Your task to perform on an android device: Clear the cart on bestbuy.com. Search for "logitech g pro" on bestbuy.com, select the first entry, and add it to the cart. Image 0: 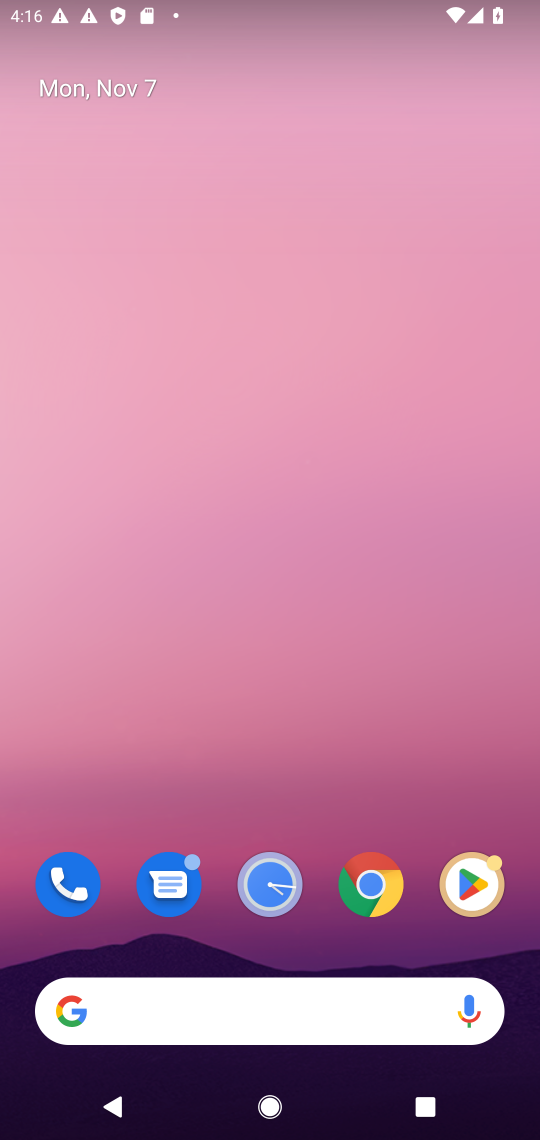
Step 0: drag from (313, 953) to (349, 75)
Your task to perform on an android device: Clear the cart on bestbuy.com. Search for "logitech g pro" on bestbuy.com, select the first entry, and add it to the cart. Image 1: 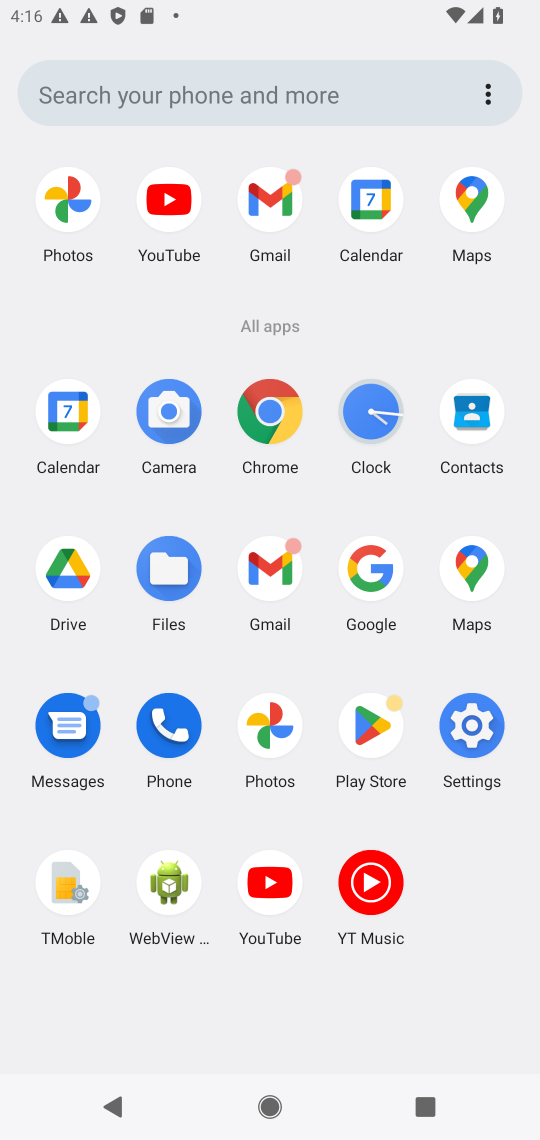
Step 1: click (272, 409)
Your task to perform on an android device: Clear the cart on bestbuy.com. Search for "logitech g pro" on bestbuy.com, select the first entry, and add it to the cart. Image 2: 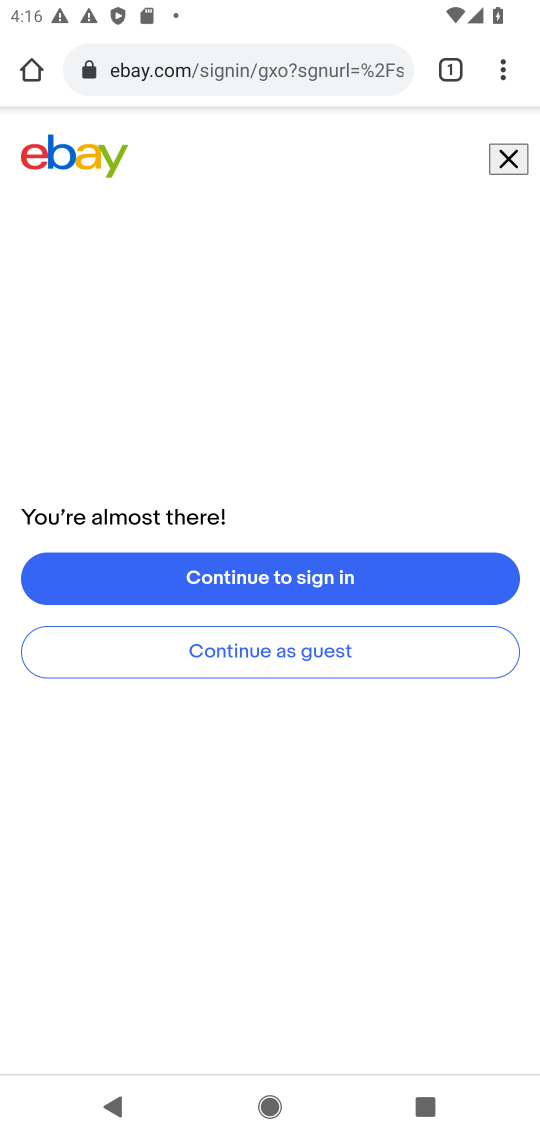
Step 2: click (288, 83)
Your task to perform on an android device: Clear the cart on bestbuy.com. Search for "logitech g pro" on bestbuy.com, select the first entry, and add it to the cart. Image 3: 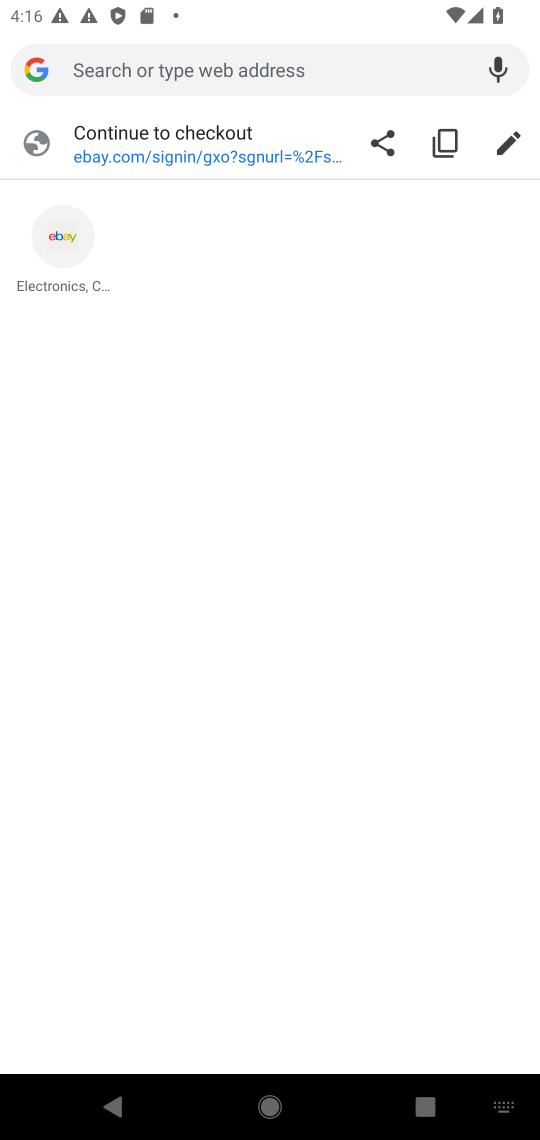
Step 3: type "bestbuy.com"
Your task to perform on an android device: Clear the cart on bestbuy.com. Search for "logitech g pro" on bestbuy.com, select the first entry, and add it to the cart. Image 4: 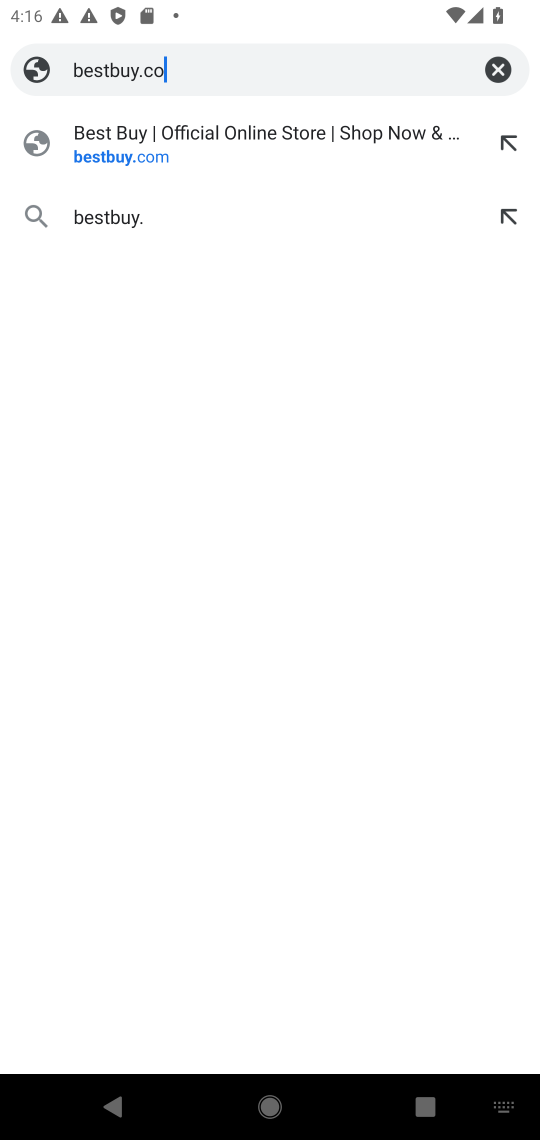
Step 4: press enter
Your task to perform on an android device: Clear the cart on bestbuy.com. Search for "logitech g pro" on bestbuy.com, select the first entry, and add it to the cart. Image 5: 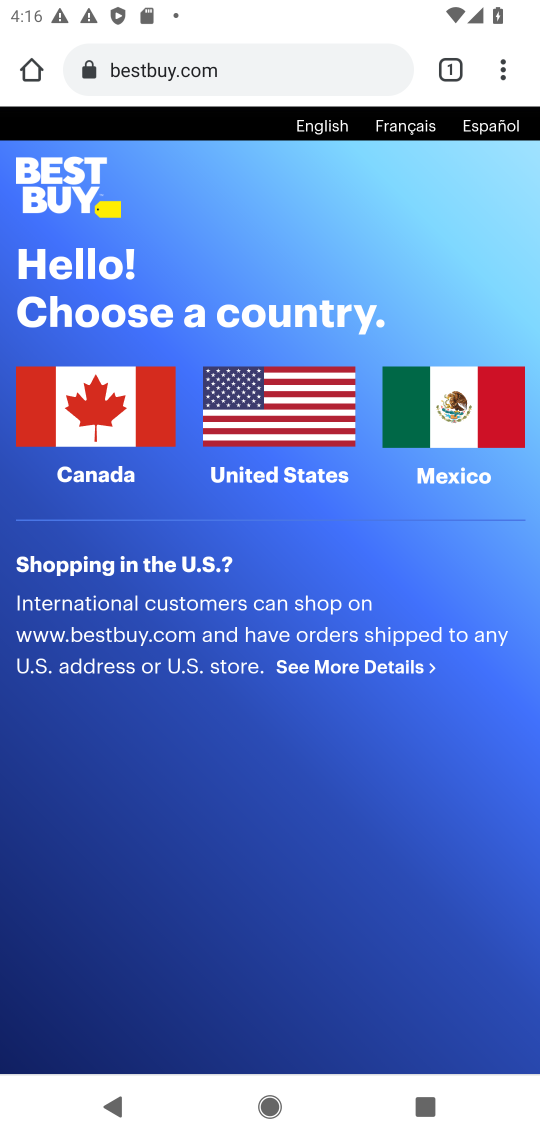
Step 5: click (82, 384)
Your task to perform on an android device: Clear the cart on bestbuy.com. Search for "logitech g pro" on bestbuy.com, select the first entry, and add it to the cart. Image 6: 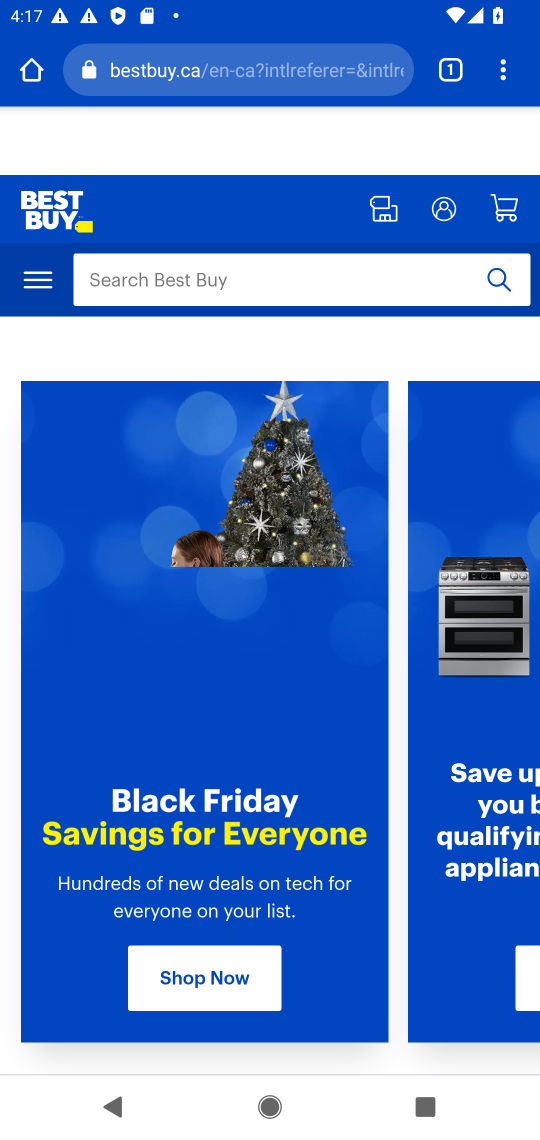
Step 6: click (515, 206)
Your task to perform on an android device: Clear the cart on bestbuy.com. Search for "logitech g pro" on bestbuy.com, select the first entry, and add it to the cart. Image 7: 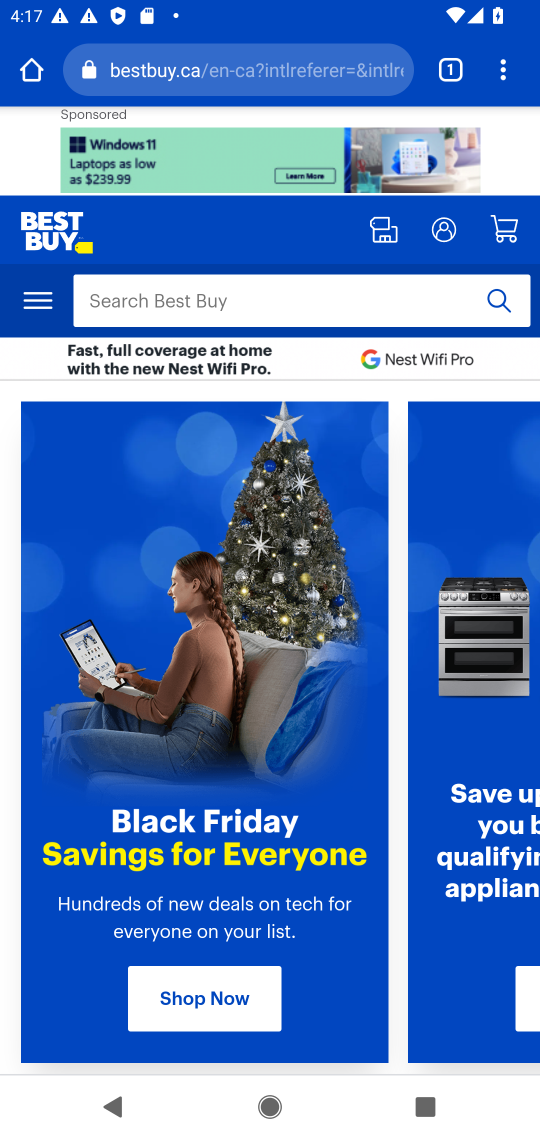
Step 7: click (511, 229)
Your task to perform on an android device: Clear the cart on bestbuy.com. Search for "logitech g pro" on bestbuy.com, select the first entry, and add it to the cart. Image 8: 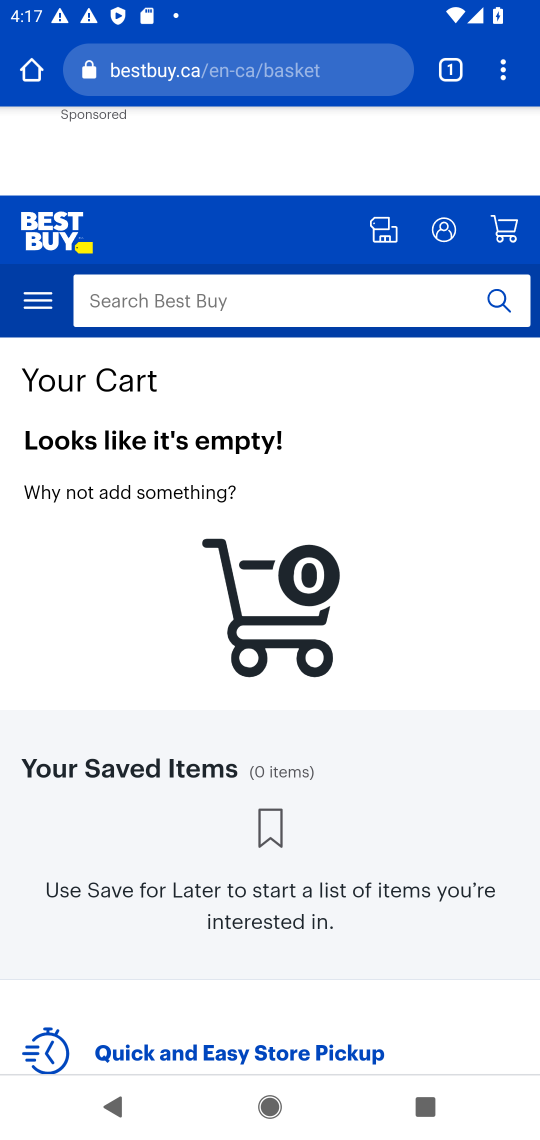
Step 8: click (343, 208)
Your task to perform on an android device: Clear the cart on bestbuy.com. Search for "logitech g pro" on bestbuy.com, select the first entry, and add it to the cart. Image 9: 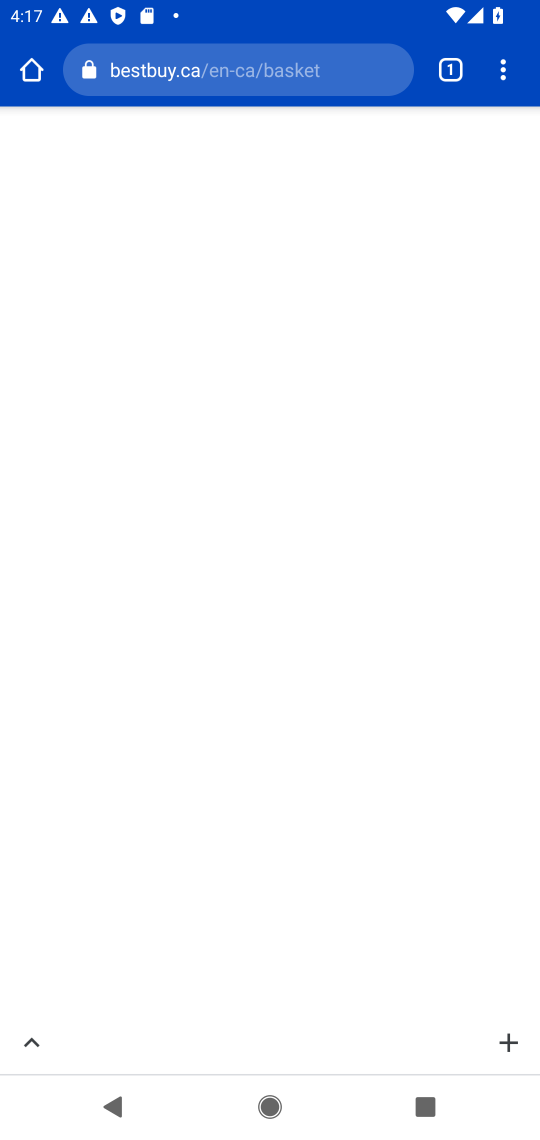
Step 9: click (331, 289)
Your task to perform on an android device: Clear the cart on bestbuy.com. Search for "logitech g pro" on bestbuy.com, select the first entry, and add it to the cart. Image 10: 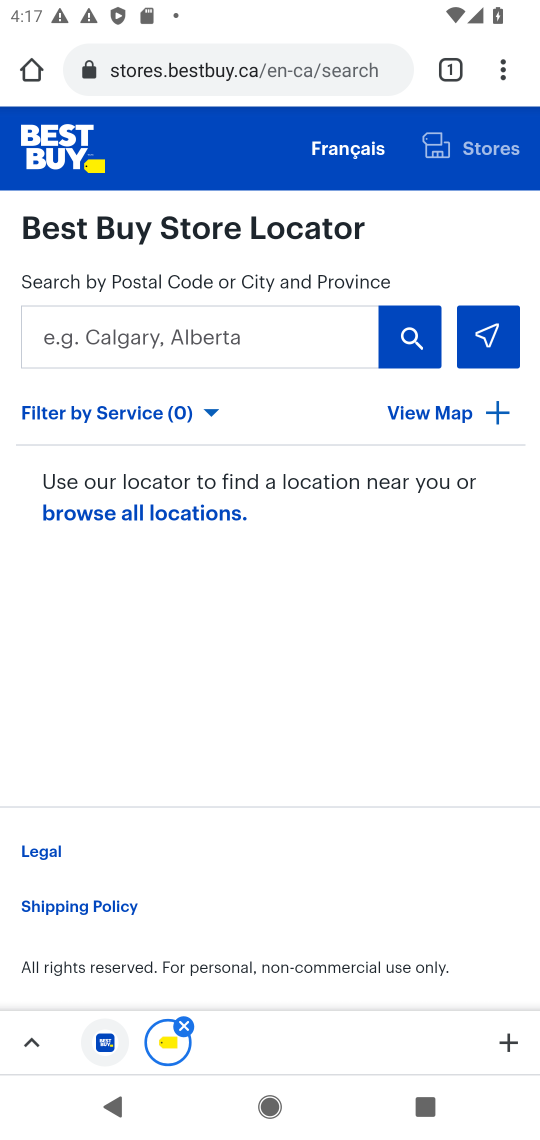
Step 10: press back button
Your task to perform on an android device: Clear the cart on bestbuy.com. Search for "logitech g pro" on bestbuy.com, select the first entry, and add it to the cart. Image 11: 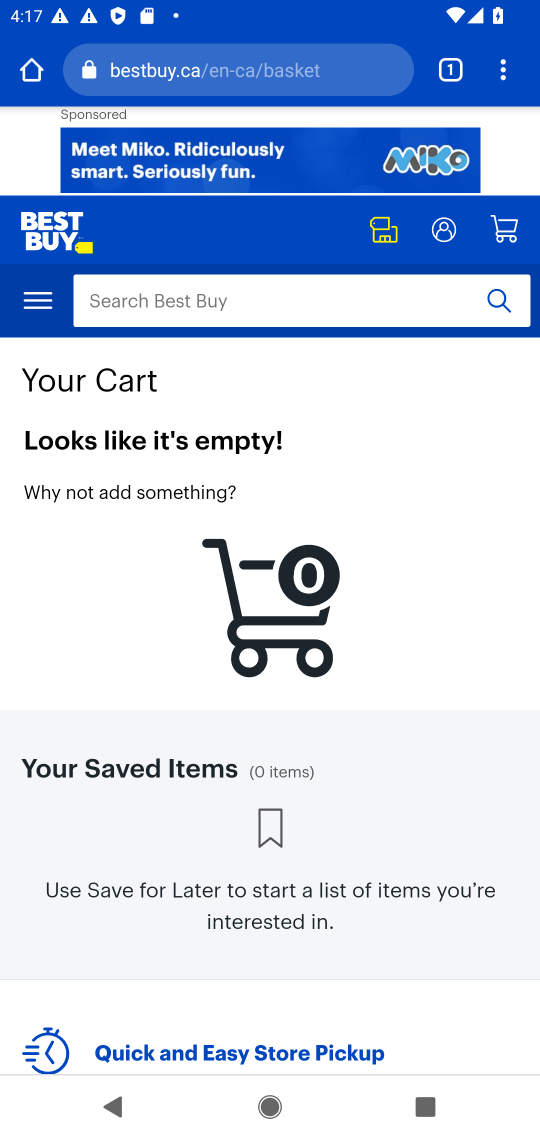
Step 11: click (309, 304)
Your task to perform on an android device: Clear the cart on bestbuy.com. Search for "logitech g pro" on bestbuy.com, select the first entry, and add it to the cart. Image 12: 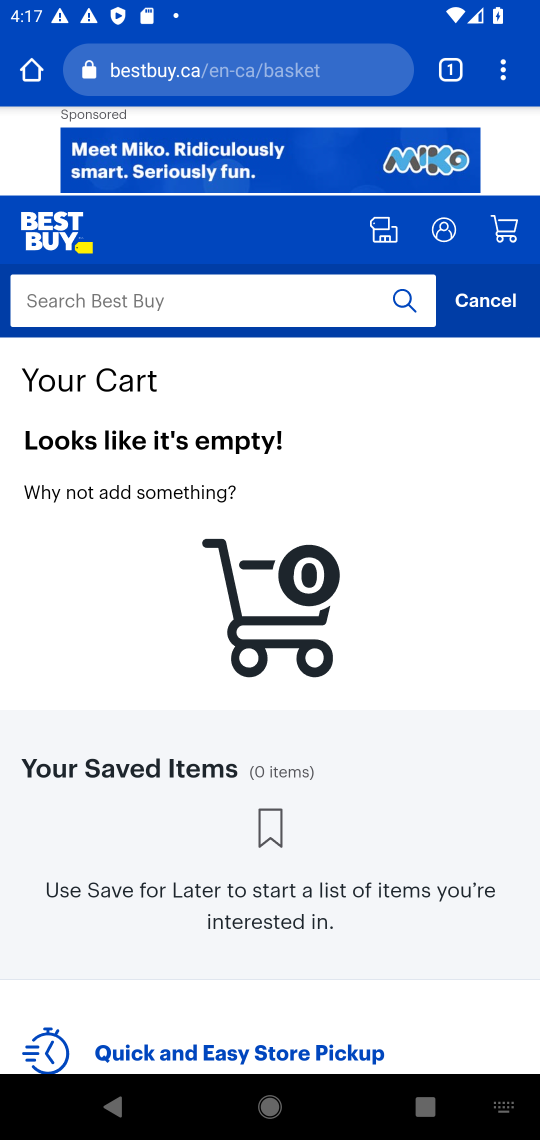
Step 12: click (250, 301)
Your task to perform on an android device: Clear the cart on bestbuy.com. Search for "logitech g pro" on bestbuy.com, select the first entry, and add it to the cart. Image 13: 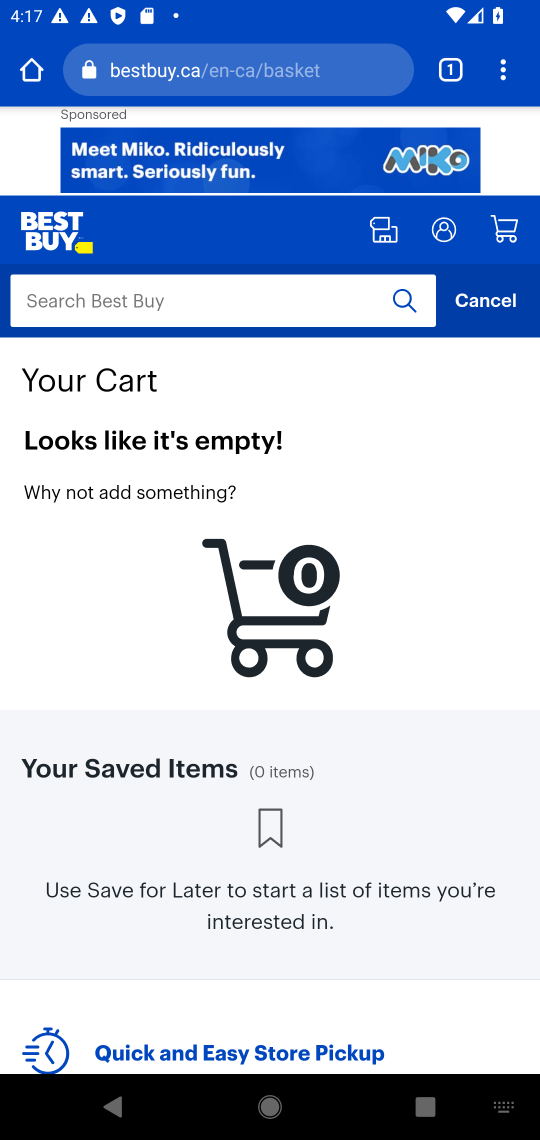
Step 13: type "logitech g pro"
Your task to perform on an android device: Clear the cart on bestbuy.com. Search for "logitech g pro" on bestbuy.com, select the first entry, and add it to the cart. Image 14: 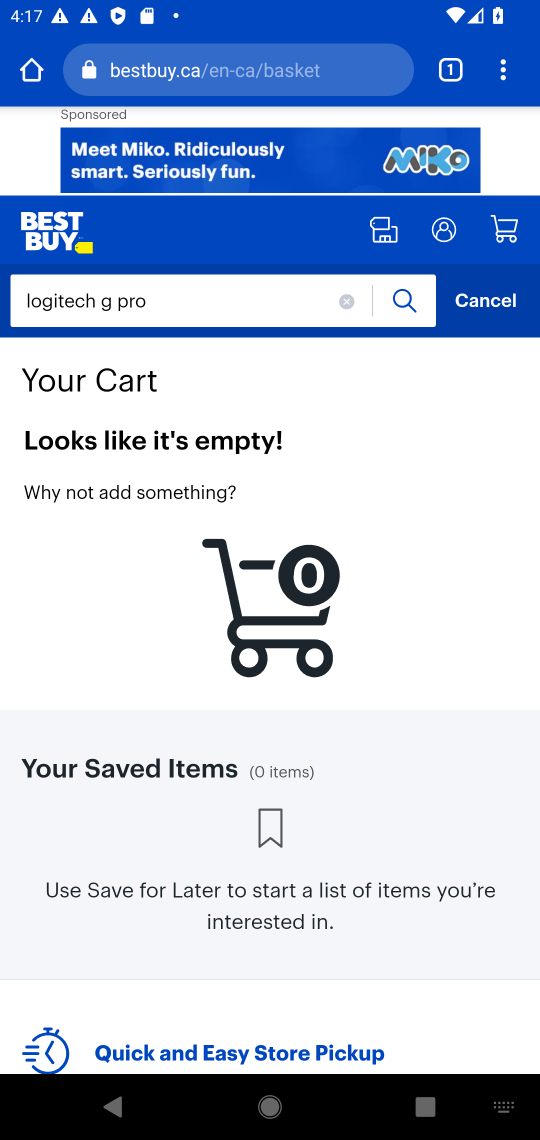
Step 14: press enter
Your task to perform on an android device: Clear the cart on bestbuy.com. Search for "logitech g pro" on bestbuy.com, select the first entry, and add it to the cart. Image 15: 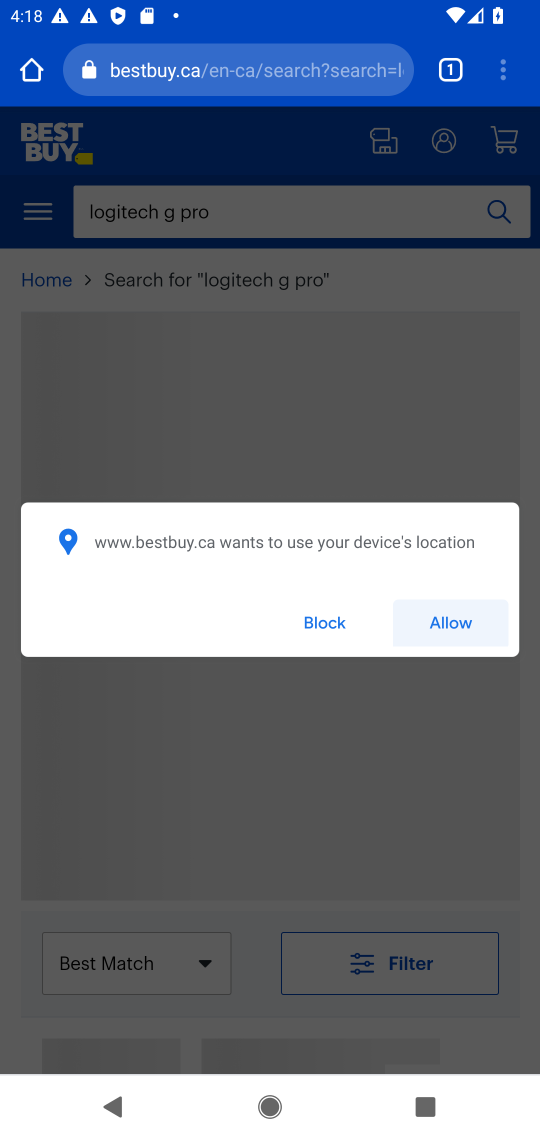
Step 15: click (323, 620)
Your task to perform on an android device: Clear the cart on bestbuy.com. Search for "logitech g pro" on bestbuy.com, select the first entry, and add it to the cart. Image 16: 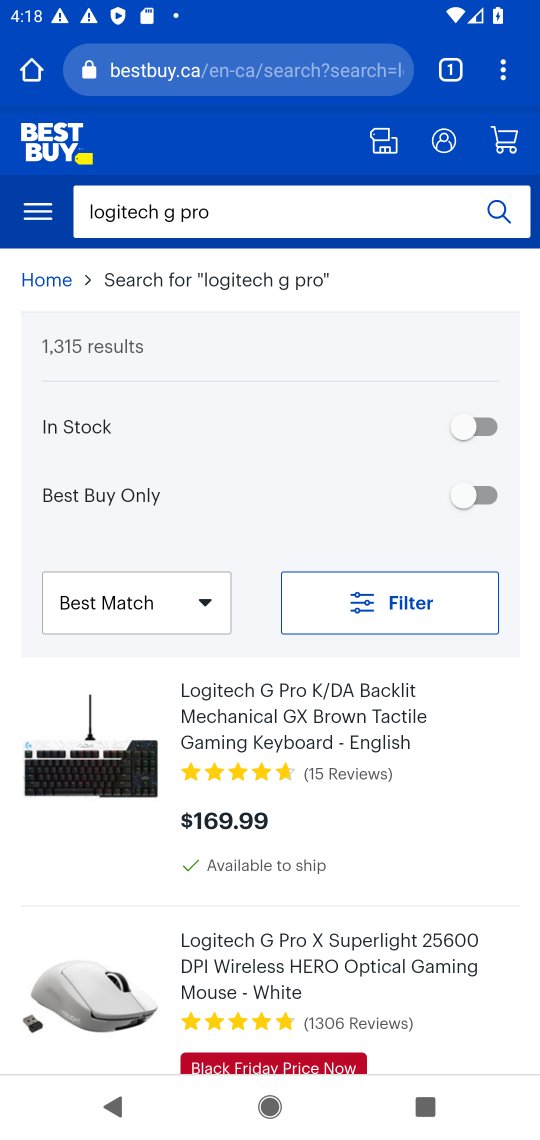
Step 16: click (369, 739)
Your task to perform on an android device: Clear the cart on bestbuy.com. Search for "logitech g pro" on bestbuy.com, select the first entry, and add it to the cart. Image 17: 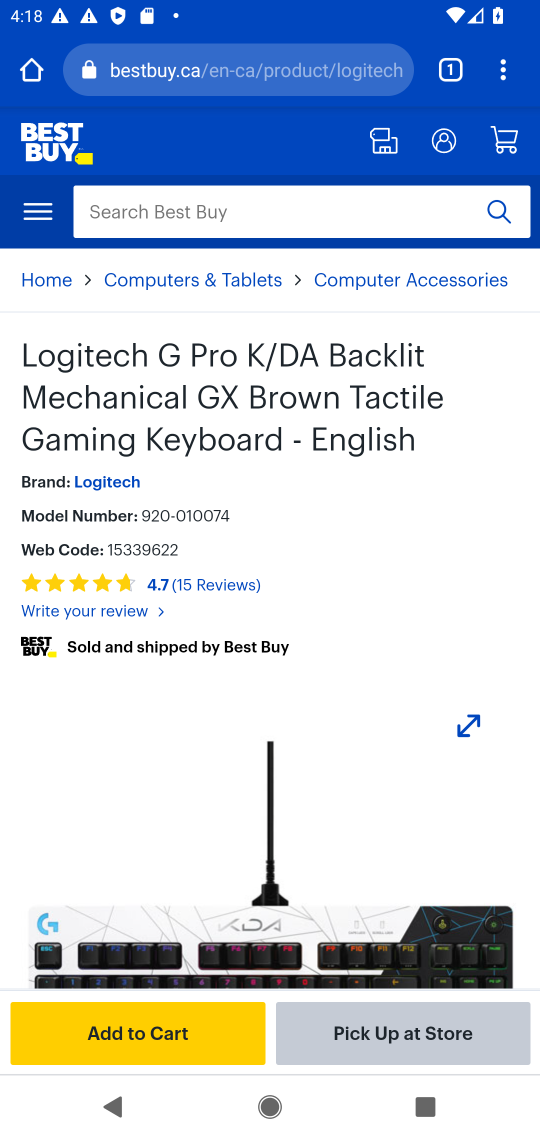
Step 17: drag from (416, 674) to (446, 322)
Your task to perform on an android device: Clear the cart on bestbuy.com. Search for "logitech g pro" on bestbuy.com, select the first entry, and add it to the cart. Image 18: 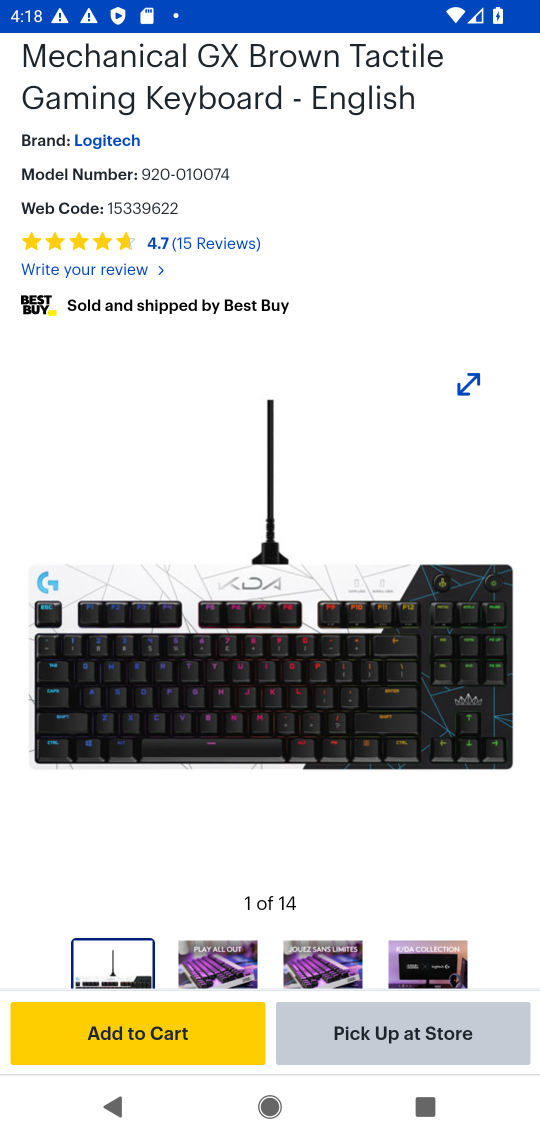
Step 18: click (175, 1025)
Your task to perform on an android device: Clear the cart on bestbuy.com. Search for "logitech g pro" on bestbuy.com, select the first entry, and add it to the cart. Image 19: 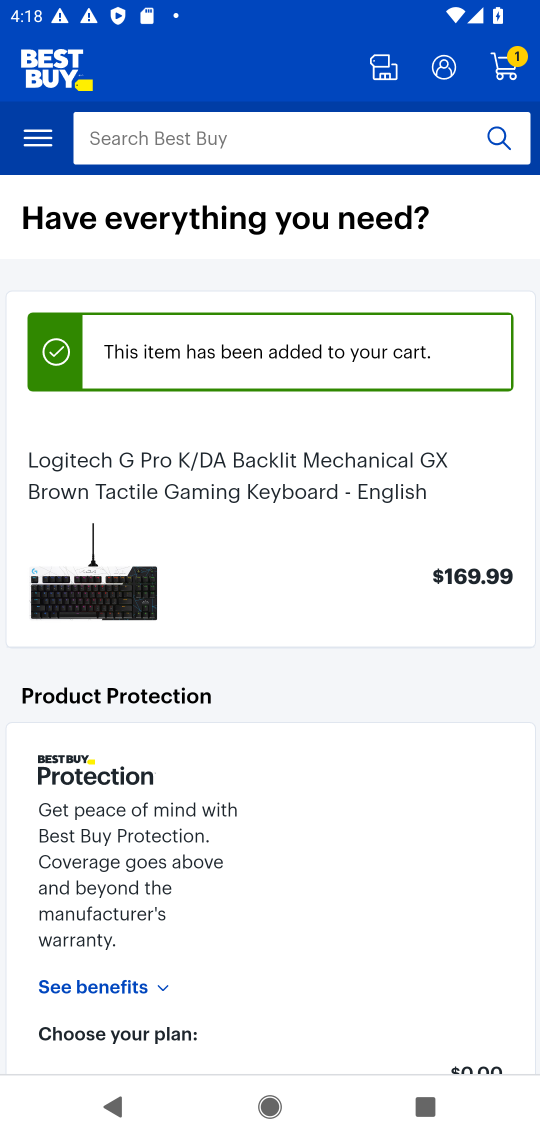
Step 19: task complete